Your task to perform on an android device: turn pop-ups off in chrome Image 0: 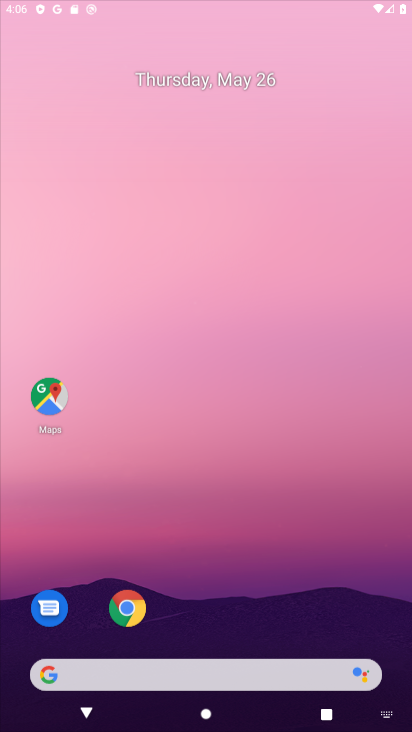
Step 0: click (379, 66)
Your task to perform on an android device: turn pop-ups off in chrome Image 1: 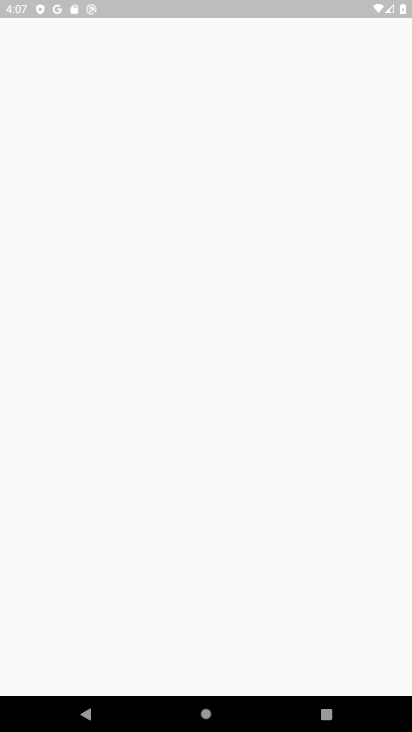
Step 1: press home button
Your task to perform on an android device: turn pop-ups off in chrome Image 2: 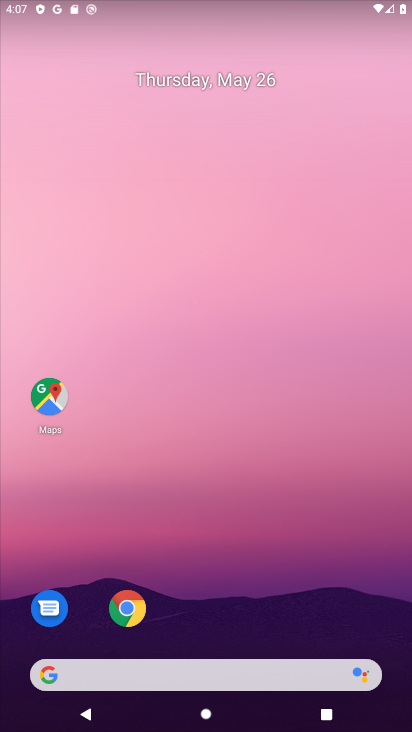
Step 2: drag from (213, 689) to (278, 75)
Your task to perform on an android device: turn pop-ups off in chrome Image 3: 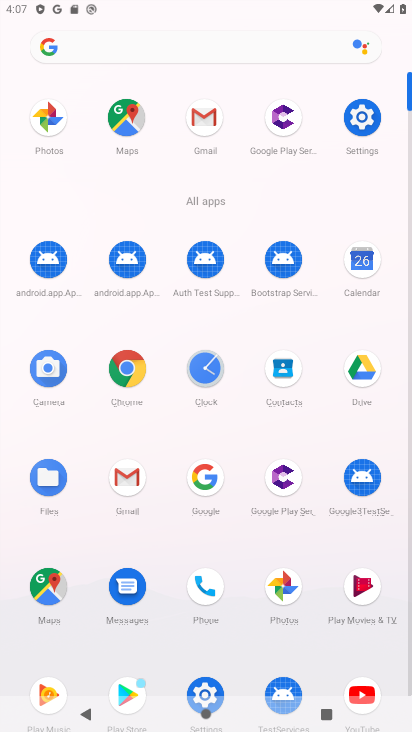
Step 3: click (122, 356)
Your task to perform on an android device: turn pop-ups off in chrome Image 4: 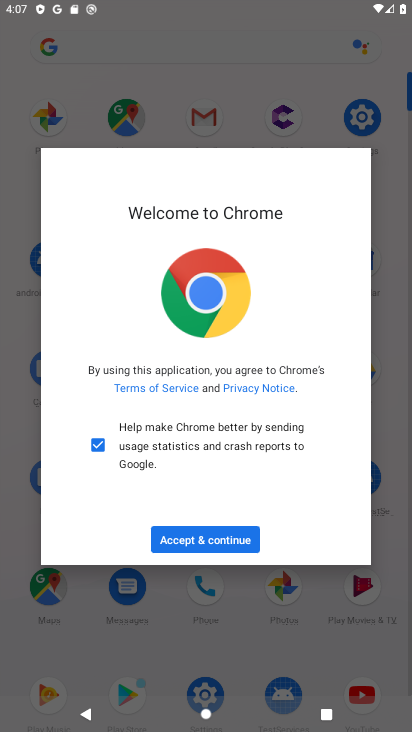
Step 4: click (209, 543)
Your task to perform on an android device: turn pop-ups off in chrome Image 5: 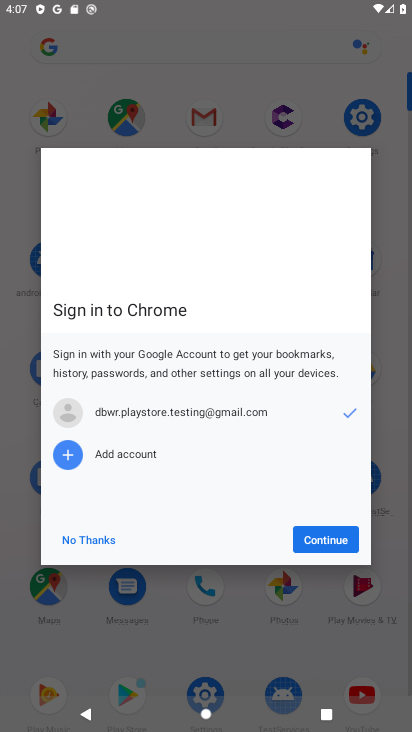
Step 5: click (313, 543)
Your task to perform on an android device: turn pop-ups off in chrome Image 6: 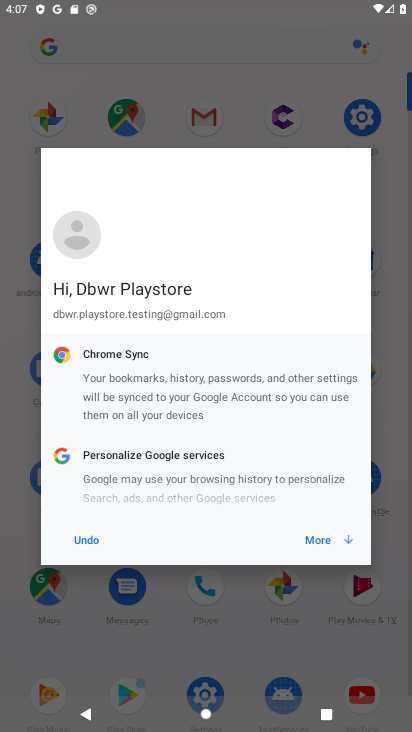
Step 6: click (329, 543)
Your task to perform on an android device: turn pop-ups off in chrome Image 7: 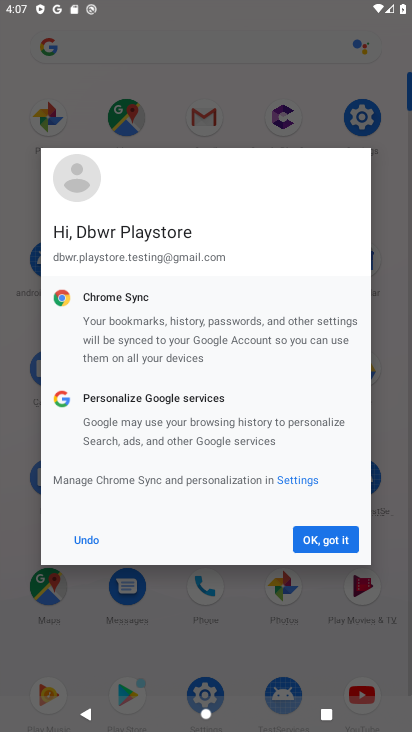
Step 7: click (321, 538)
Your task to perform on an android device: turn pop-ups off in chrome Image 8: 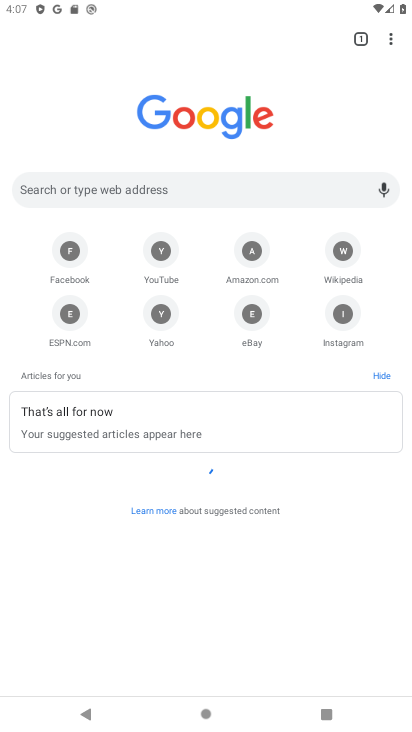
Step 8: click (390, 42)
Your task to perform on an android device: turn pop-ups off in chrome Image 9: 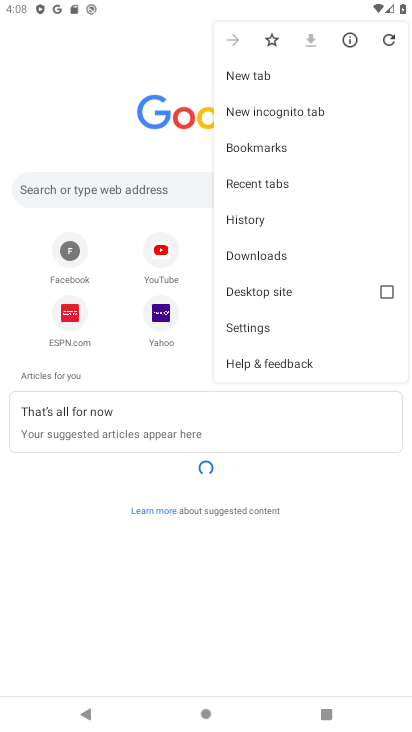
Step 9: click (275, 331)
Your task to perform on an android device: turn pop-ups off in chrome Image 10: 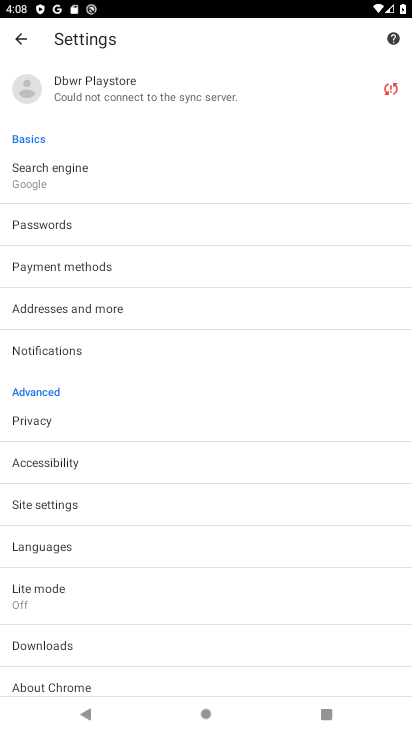
Step 10: click (84, 508)
Your task to perform on an android device: turn pop-ups off in chrome Image 11: 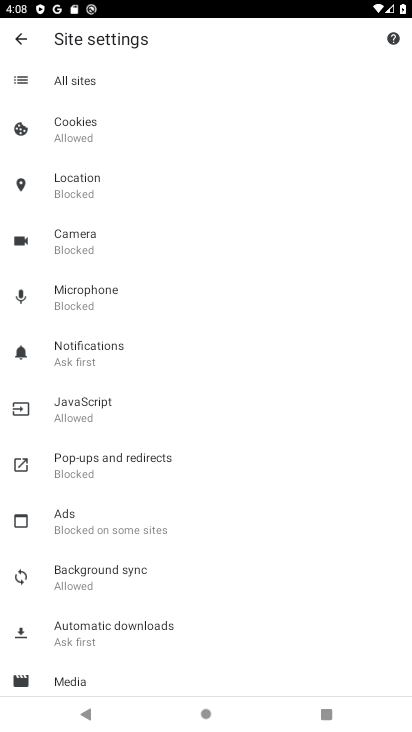
Step 11: click (95, 466)
Your task to perform on an android device: turn pop-ups off in chrome Image 12: 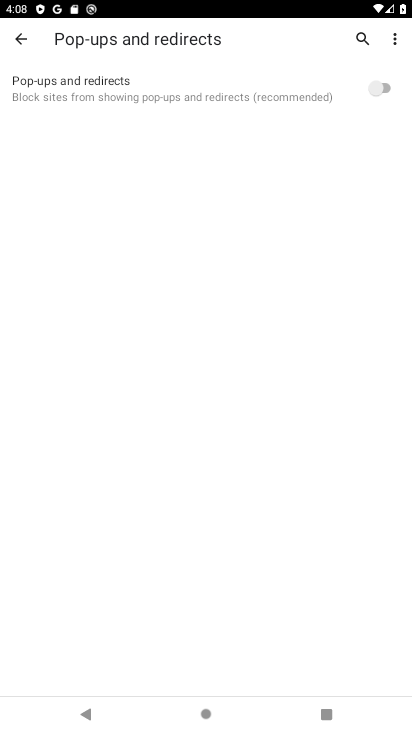
Step 12: task complete